Your task to perform on an android device: Go to eBay Image 0: 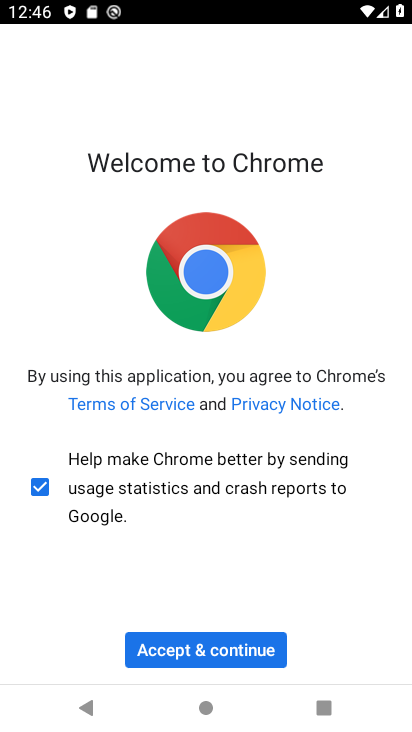
Step 0: click (240, 649)
Your task to perform on an android device: Go to eBay Image 1: 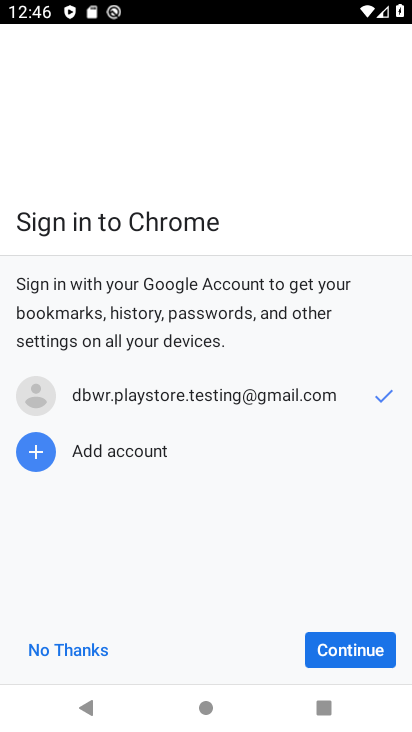
Step 1: click (339, 661)
Your task to perform on an android device: Go to eBay Image 2: 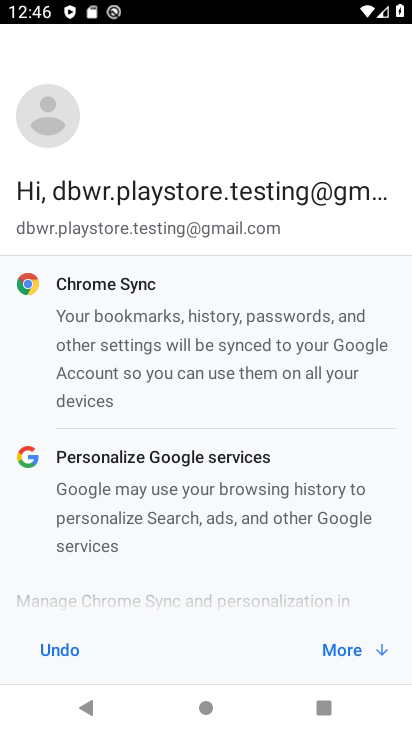
Step 2: click (343, 655)
Your task to perform on an android device: Go to eBay Image 3: 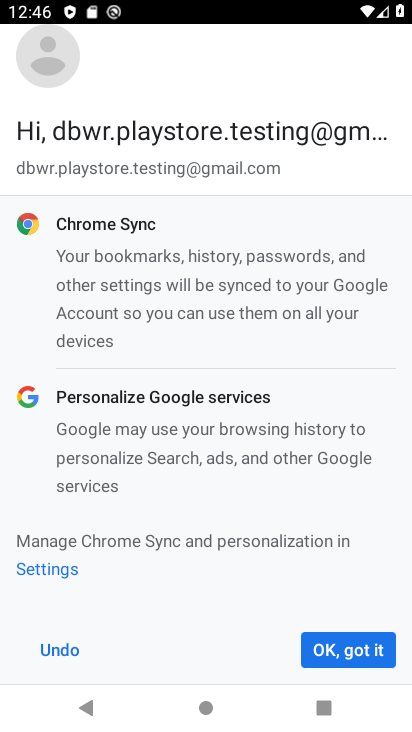
Step 3: click (343, 655)
Your task to perform on an android device: Go to eBay Image 4: 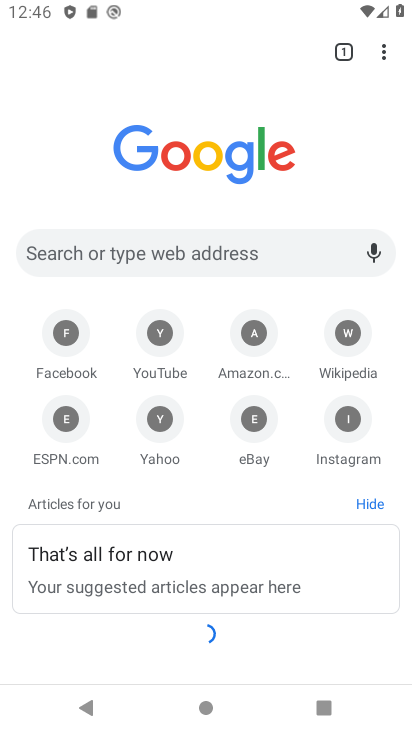
Step 4: click (246, 256)
Your task to perform on an android device: Go to eBay Image 5: 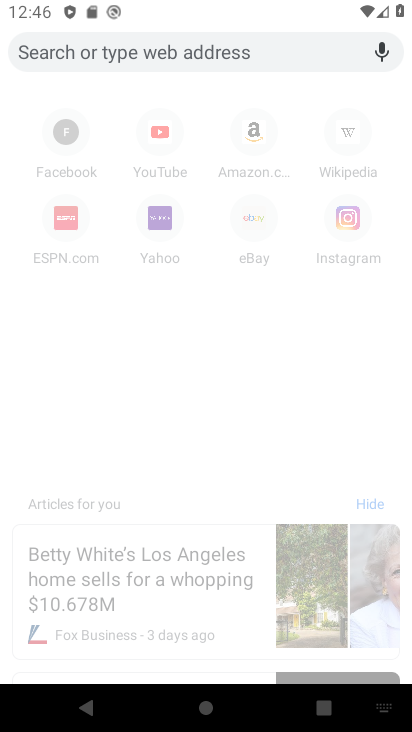
Step 5: type "ebay"
Your task to perform on an android device: Go to eBay Image 6: 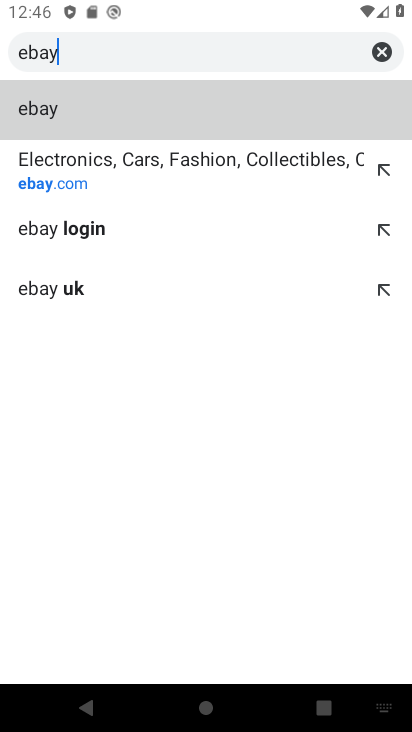
Step 6: click (242, 166)
Your task to perform on an android device: Go to eBay Image 7: 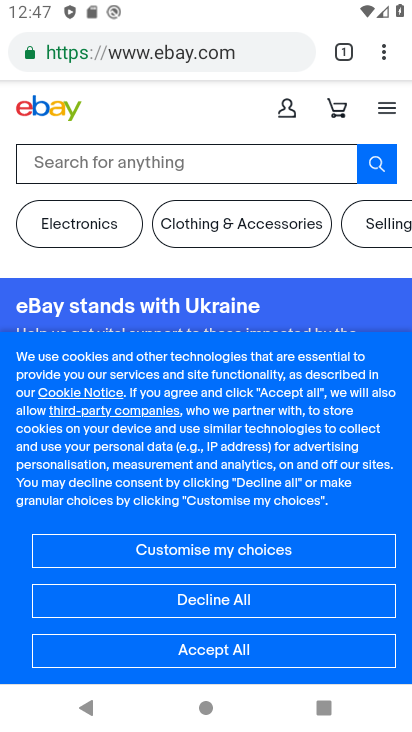
Step 7: task complete